Your task to perform on an android device: toggle priority inbox in the gmail app Image 0: 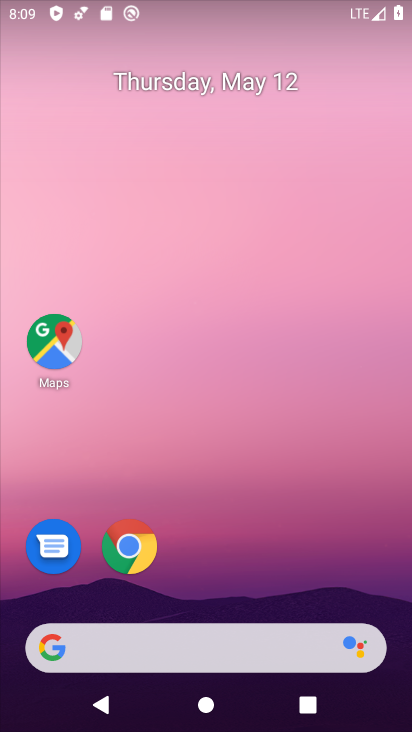
Step 0: drag from (178, 566) to (255, 60)
Your task to perform on an android device: toggle priority inbox in the gmail app Image 1: 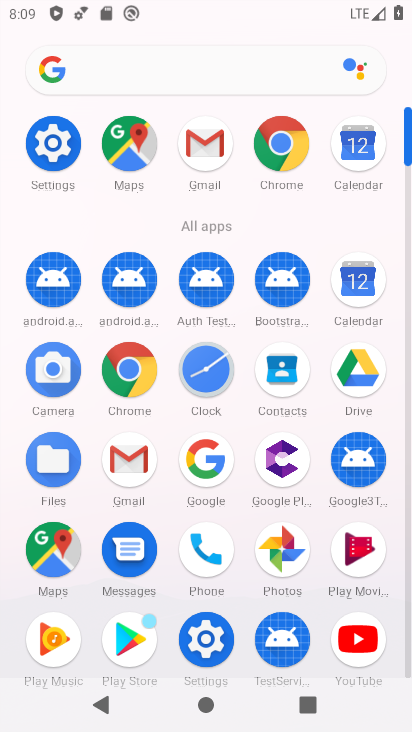
Step 1: click (204, 129)
Your task to perform on an android device: toggle priority inbox in the gmail app Image 2: 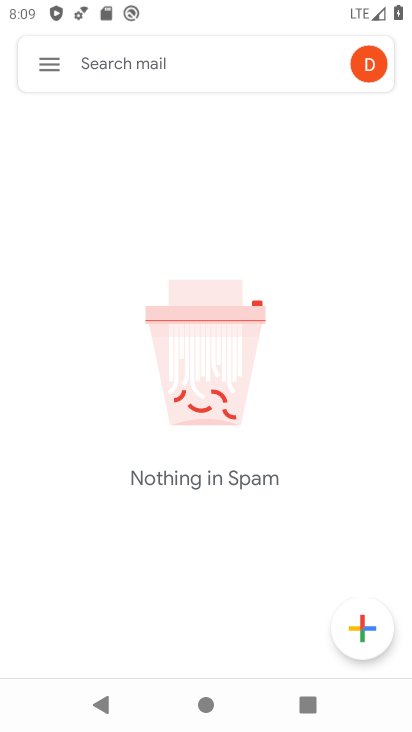
Step 2: click (59, 62)
Your task to perform on an android device: toggle priority inbox in the gmail app Image 3: 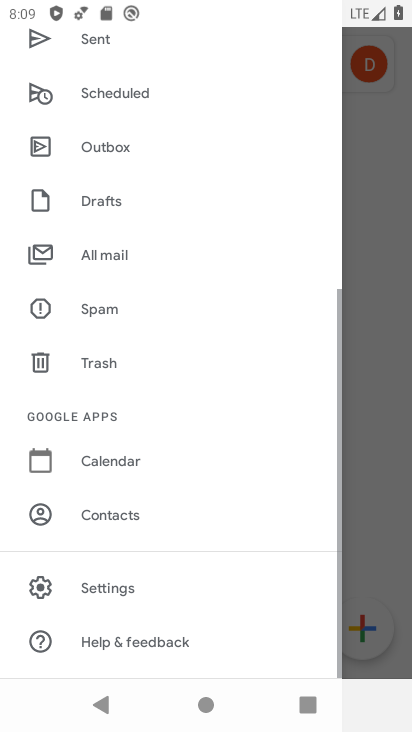
Step 3: click (132, 587)
Your task to perform on an android device: toggle priority inbox in the gmail app Image 4: 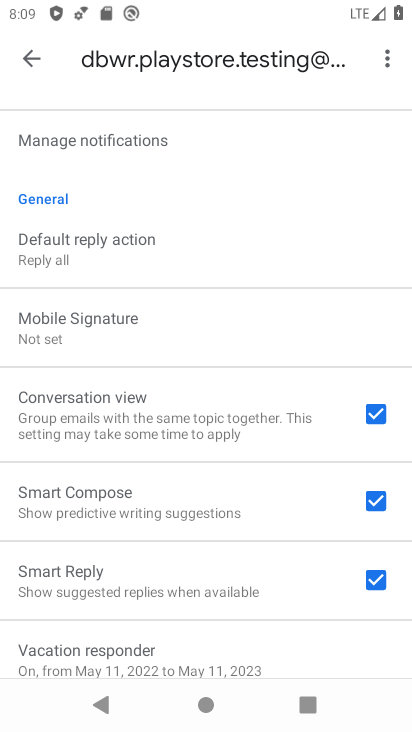
Step 4: drag from (162, 188) to (136, 694)
Your task to perform on an android device: toggle priority inbox in the gmail app Image 5: 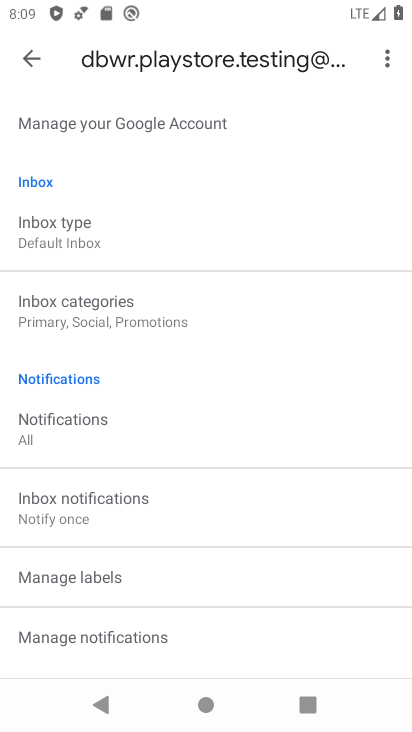
Step 5: click (70, 229)
Your task to perform on an android device: toggle priority inbox in the gmail app Image 6: 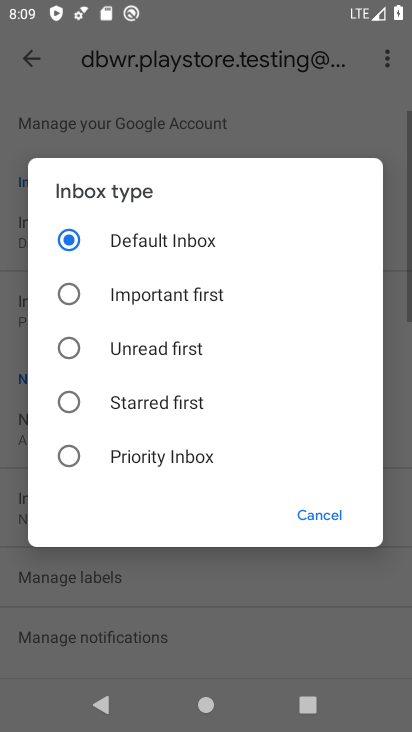
Step 6: click (70, 459)
Your task to perform on an android device: toggle priority inbox in the gmail app Image 7: 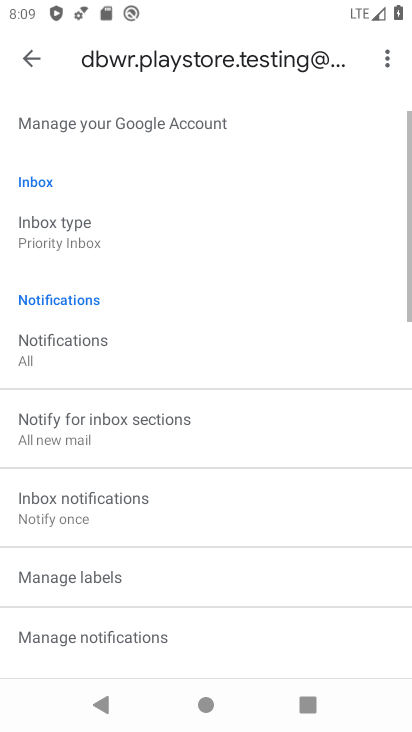
Step 7: task complete